Your task to perform on an android device: Open calendar and show me the first week of next month Image 0: 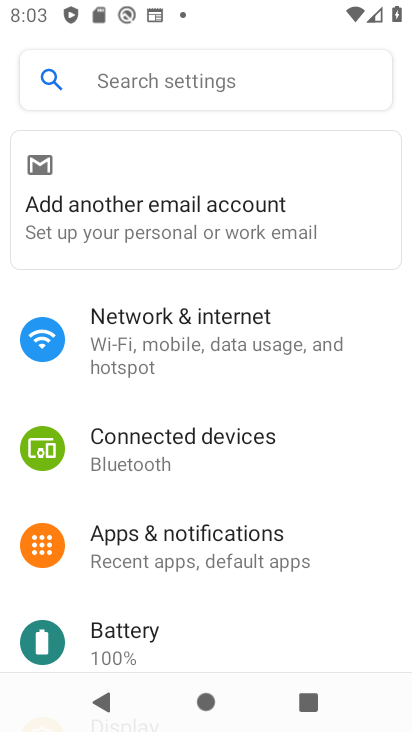
Step 0: press home button
Your task to perform on an android device: Open calendar and show me the first week of next month Image 1: 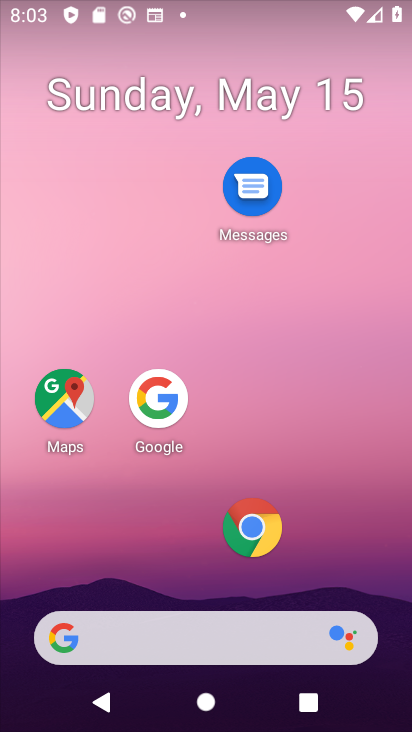
Step 1: drag from (145, 644) to (293, 162)
Your task to perform on an android device: Open calendar and show me the first week of next month Image 2: 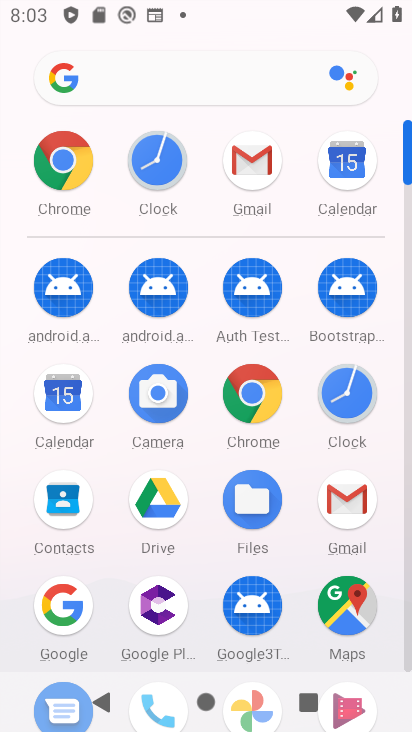
Step 2: click (65, 398)
Your task to perform on an android device: Open calendar and show me the first week of next month Image 3: 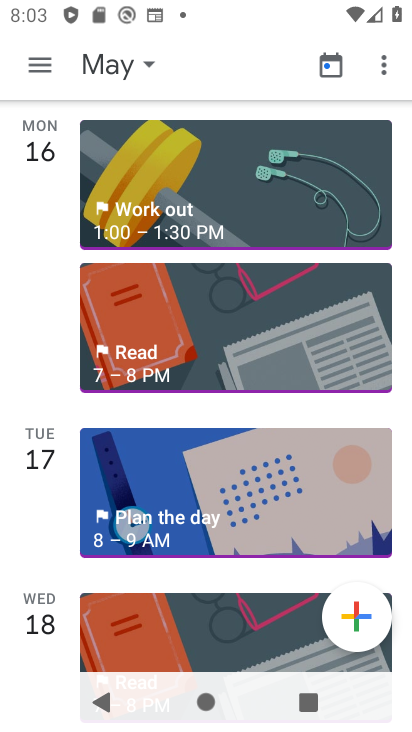
Step 3: click (91, 60)
Your task to perform on an android device: Open calendar and show me the first week of next month Image 4: 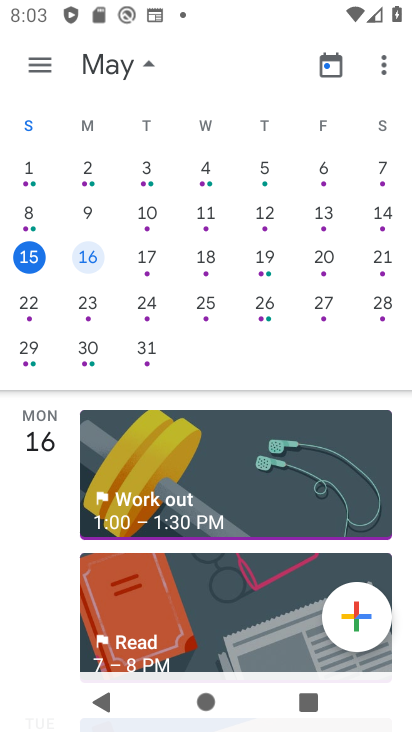
Step 4: drag from (376, 232) to (9, 247)
Your task to perform on an android device: Open calendar and show me the first week of next month Image 5: 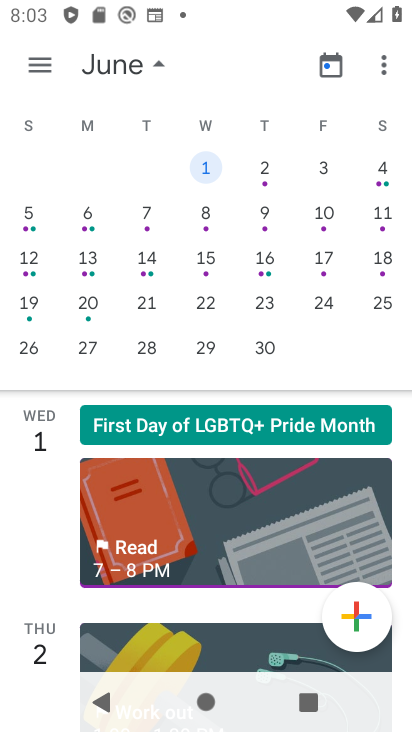
Step 5: click (205, 165)
Your task to perform on an android device: Open calendar and show me the first week of next month Image 6: 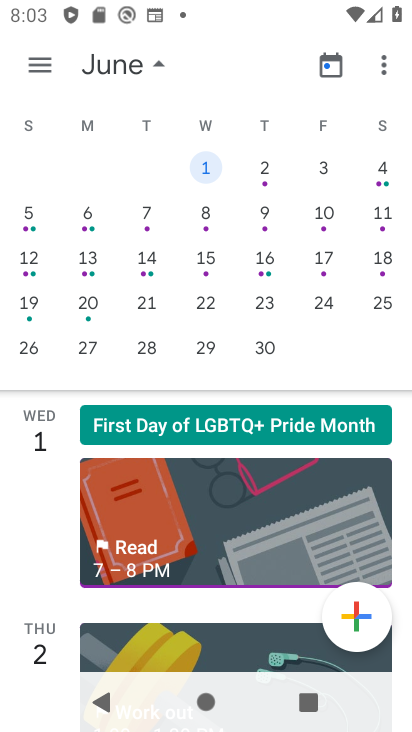
Step 6: click (48, 71)
Your task to perform on an android device: Open calendar and show me the first week of next month Image 7: 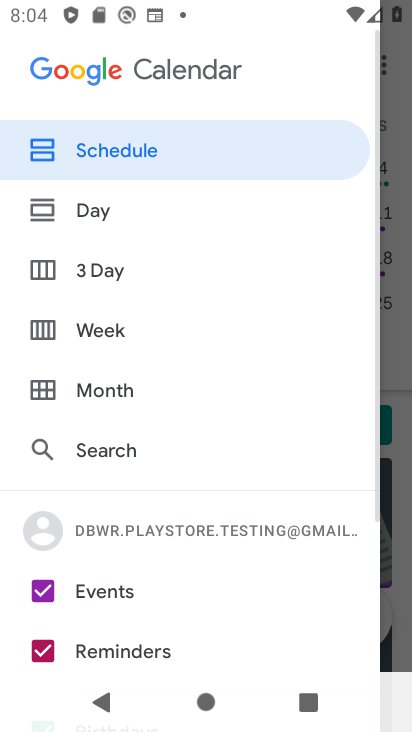
Step 7: click (104, 331)
Your task to perform on an android device: Open calendar and show me the first week of next month Image 8: 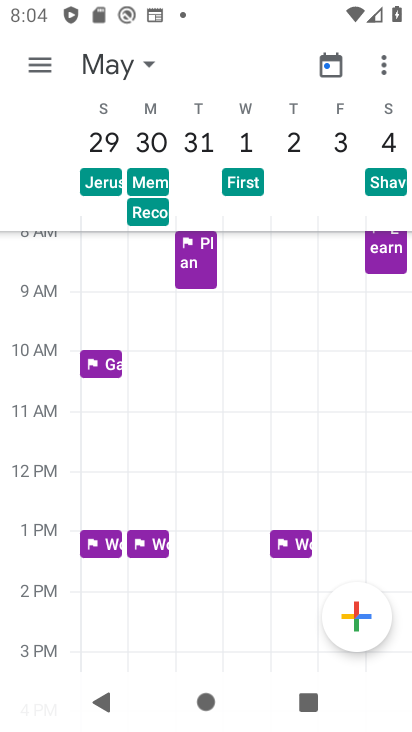
Step 8: task complete